Your task to perform on an android device: Show me popular games on the Play Store Image 0: 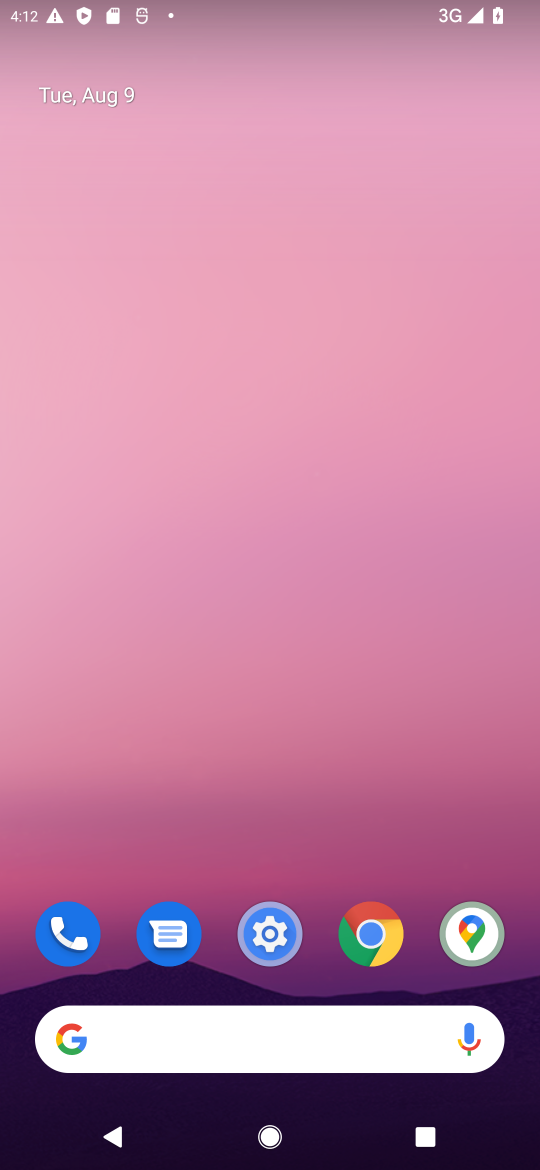
Step 0: drag from (322, 998) to (325, 30)
Your task to perform on an android device: Show me popular games on the Play Store Image 1: 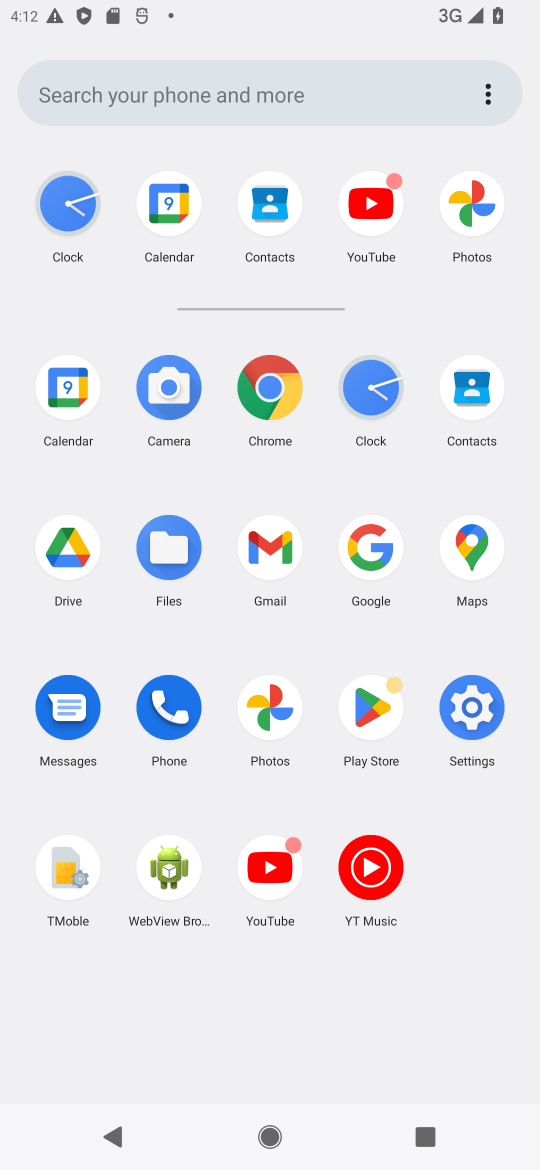
Step 1: click (377, 729)
Your task to perform on an android device: Show me popular games on the Play Store Image 2: 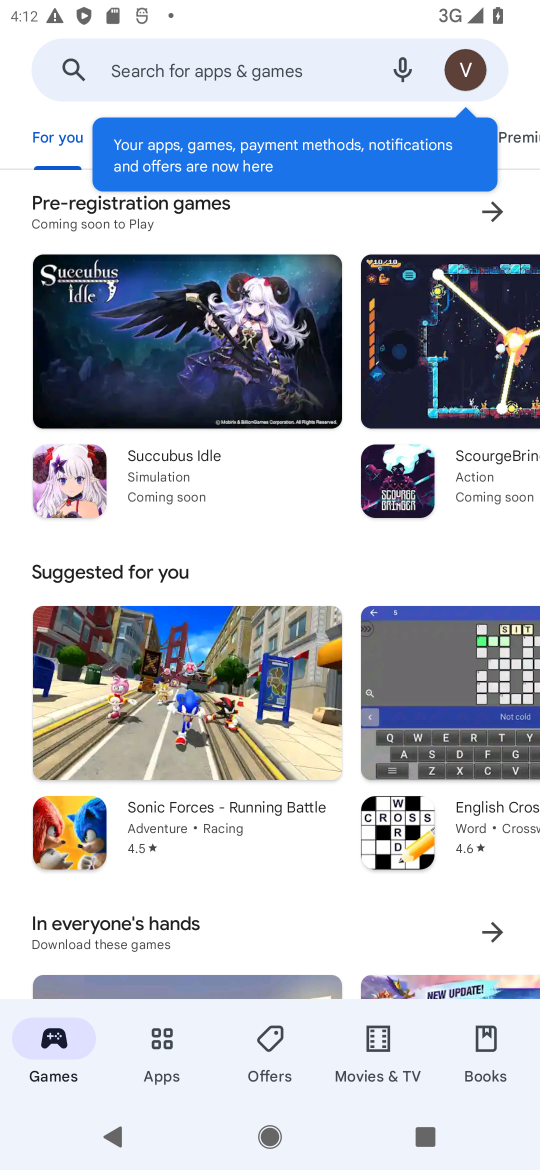
Step 2: task complete